Your task to perform on an android device: check google app version Image 0: 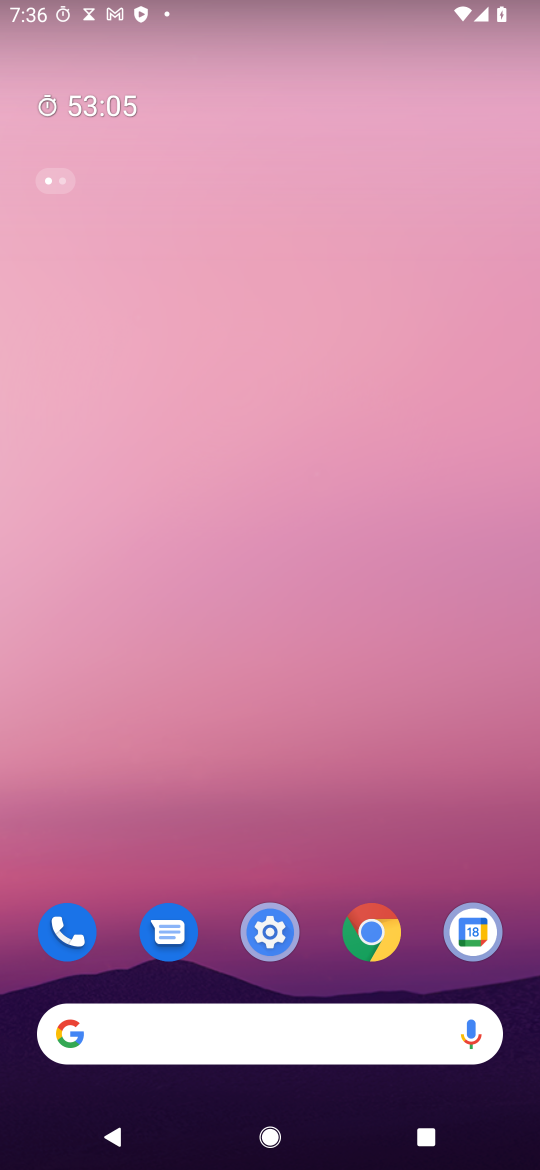
Step 0: drag from (367, 840) to (417, 79)
Your task to perform on an android device: check google app version Image 1: 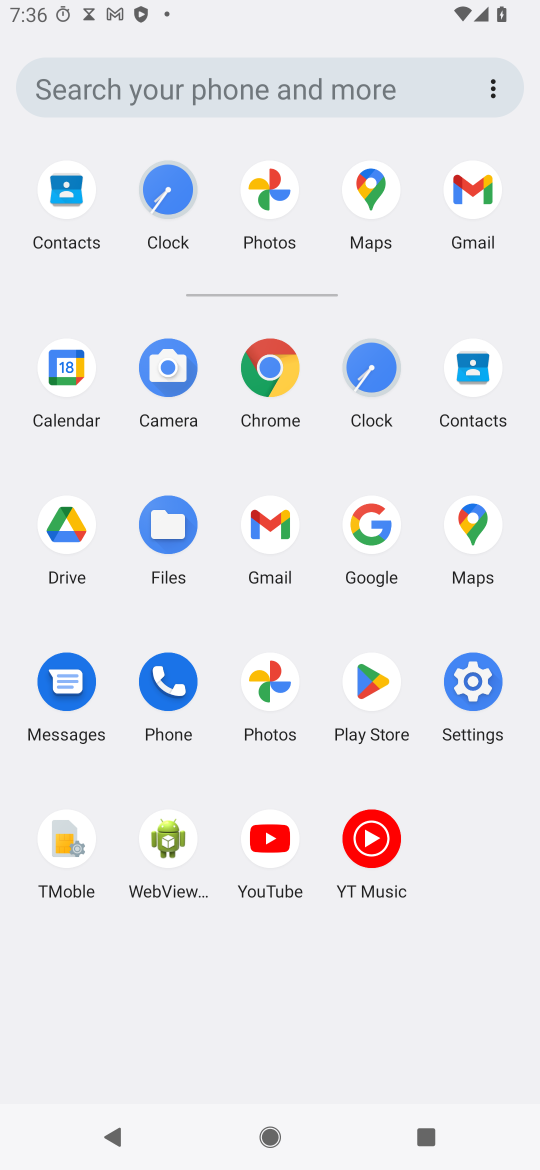
Step 1: click (375, 533)
Your task to perform on an android device: check google app version Image 2: 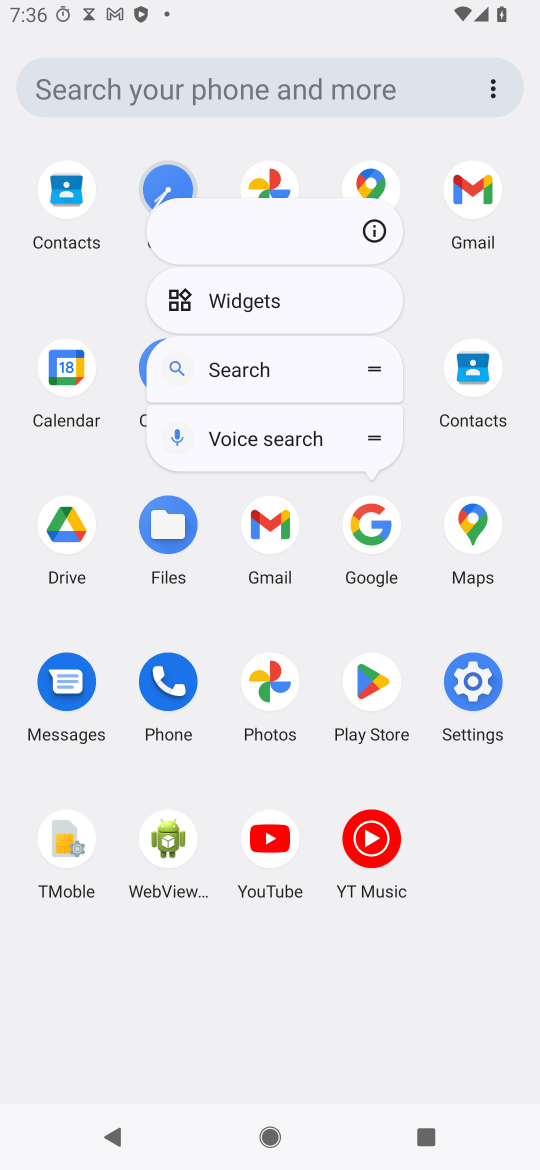
Step 2: click (375, 227)
Your task to perform on an android device: check google app version Image 3: 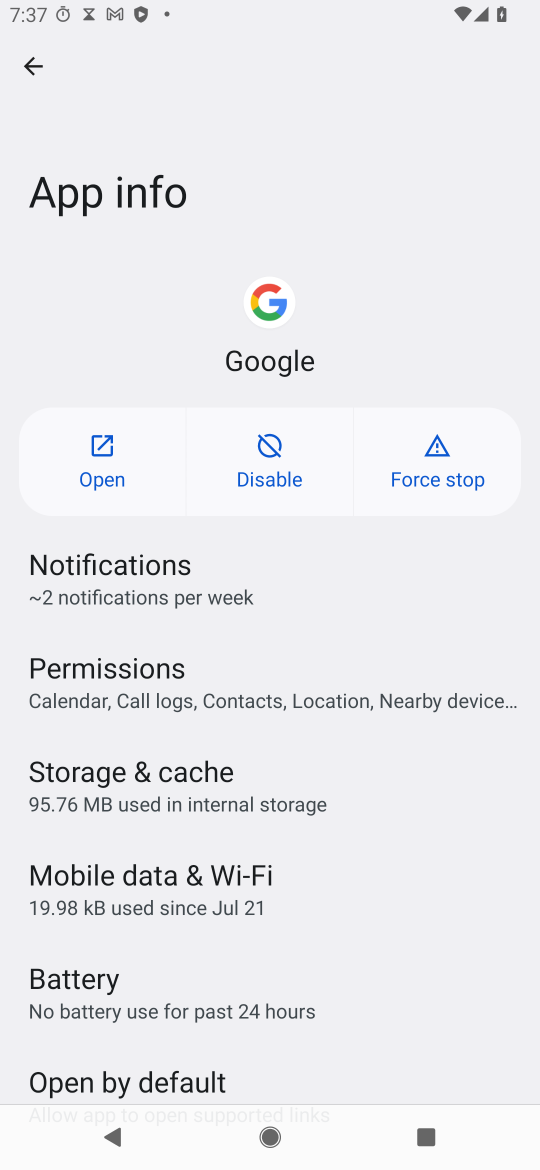
Step 3: task complete